Your task to perform on an android device: Go to Yahoo.com Image 0: 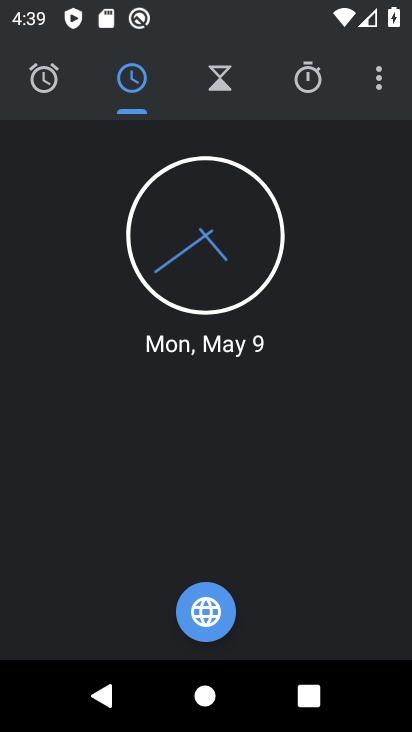
Step 0: press home button
Your task to perform on an android device: Go to Yahoo.com Image 1: 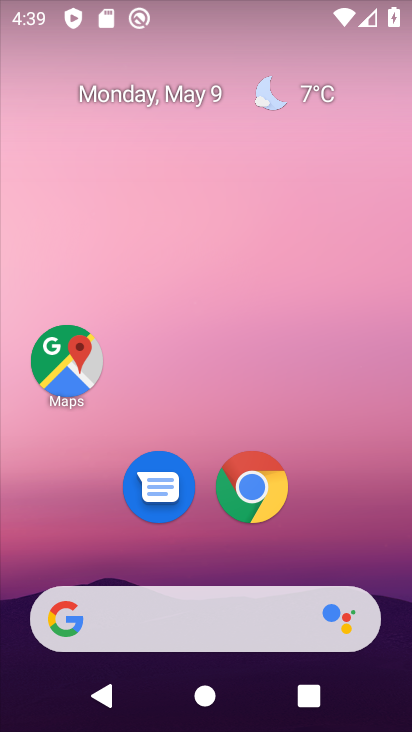
Step 1: click (164, 613)
Your task to perform on an android device: Go to Yahoo.com Image 2: 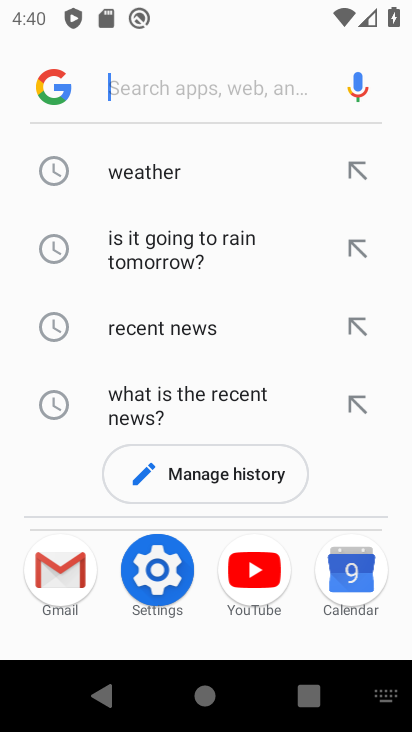
Step 2: type "Yahoo"
Your task to perform on an android device: Go to Yahoo.com Image 3: 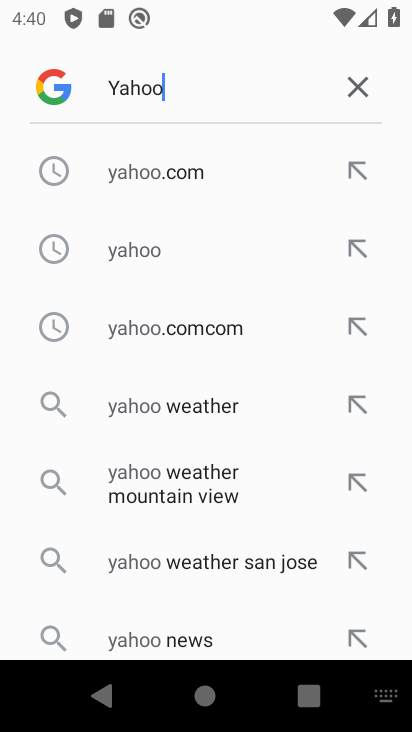
Step 3: click (178, 174)
Your task to perform on an android device: Go to Yahoo.com Image 4: 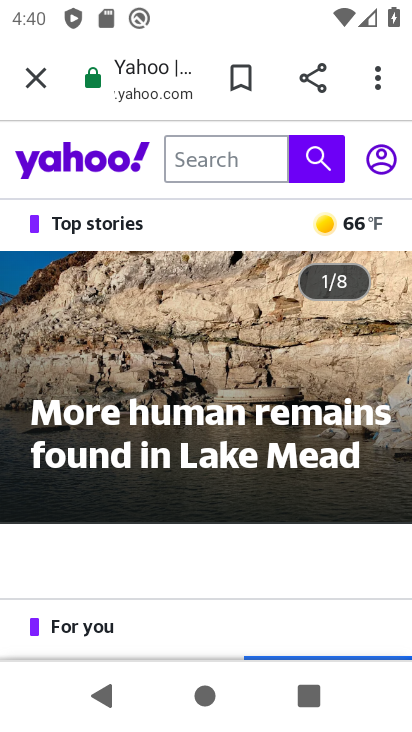
Step 4: task complete